Your task to perform on an android device: stop showing notifications on the lock screen Image 0: 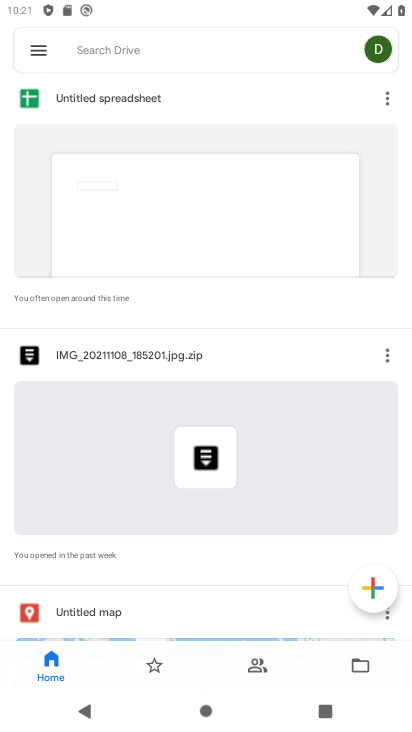
Step 0: press home button
Your task to perform on an android device: stop showing notifications on the lock screen Image 1: 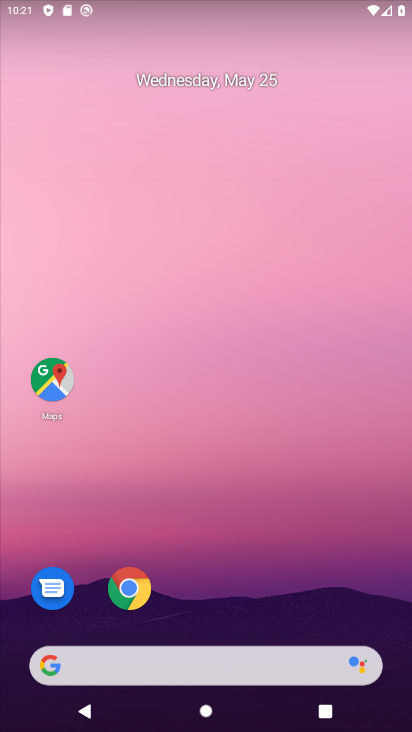
Step 1: drag from (289, 593) to (265, 0)
Your task to perform on an android device: stop showing notifications on the lock screen Image 2: 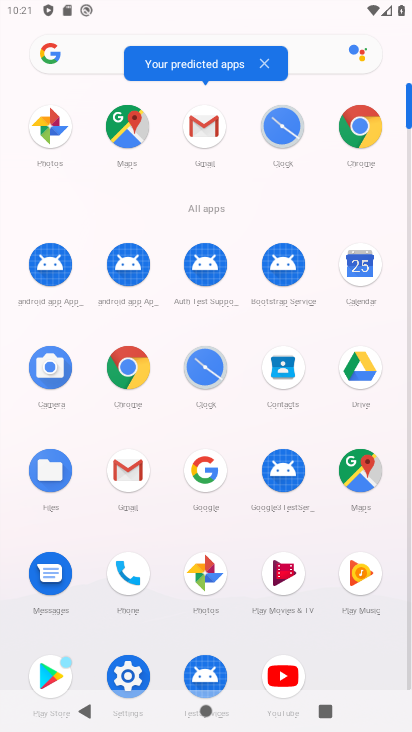
Step 2: click (129, 672)
Your task to perform on an android device: stop showing notifications on the lock screen Image 3: 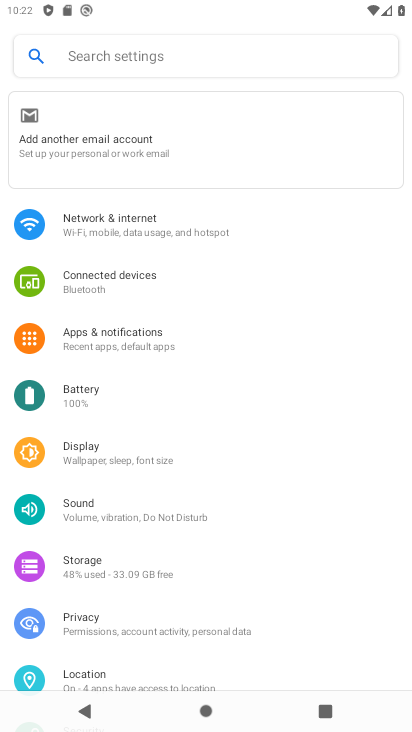
Step 3: click (158, 343)
Your task to perform on an android device: stop showing notifications on the lock screen Image 4: 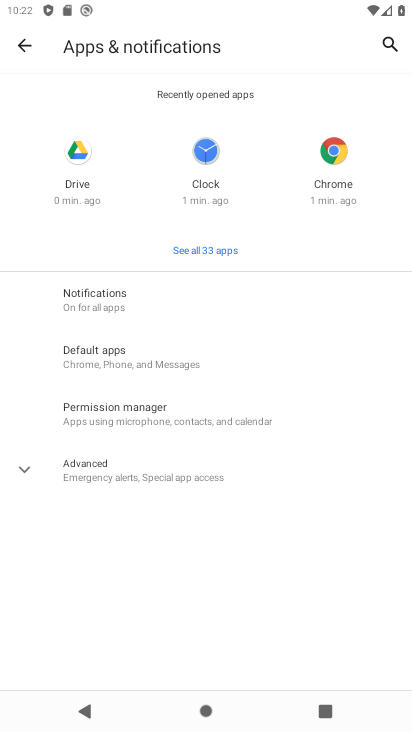
Step 4: click (148, 287)
Your task to perform on an android device: stop showing notifications on the lock screen Image 5: 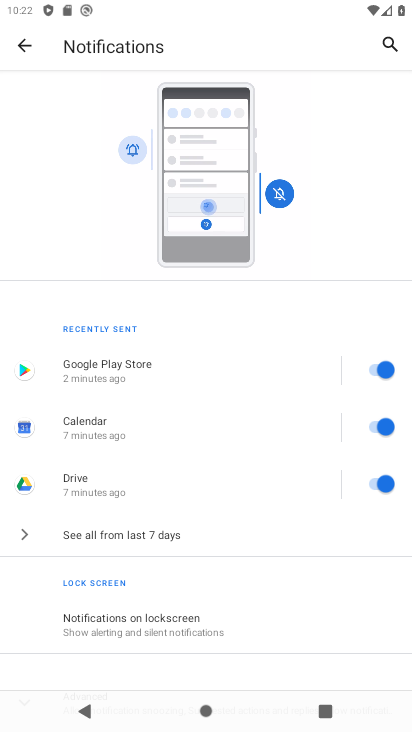
Step 5: click (141, 626)
Your task to perform on an android device: stop showing notifications on the lock screen Image 6: 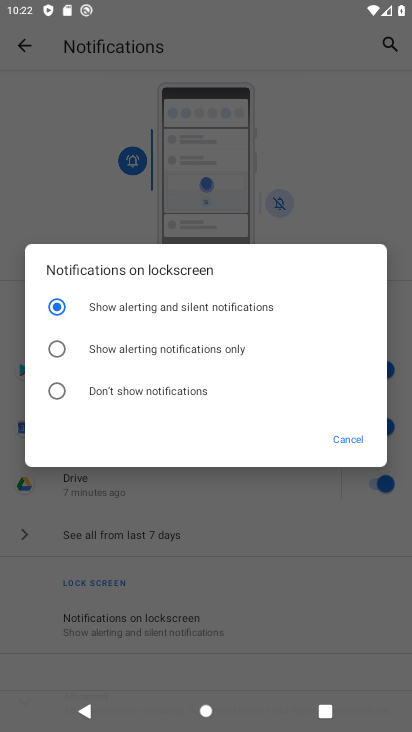
Step 6: click (129, 393)
Your task to perform on an android device: stop showing notifications on the lock screen Image 7: 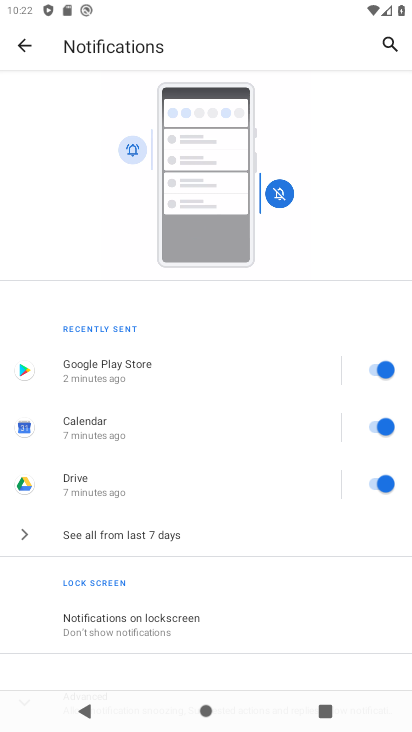
Step 7: task complete